Your task to perform on an android device: Go to ESPN.com Image 0: 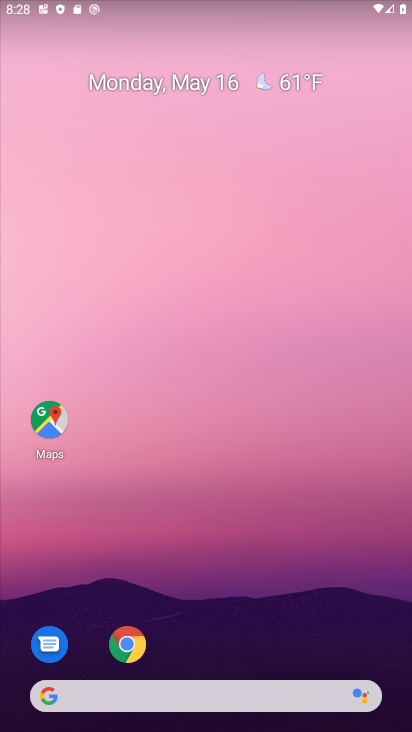
Step 0: drag from (241, 639) to (279, 128)
Your task to perform on an android device: Go to ESPN.com Image 1: 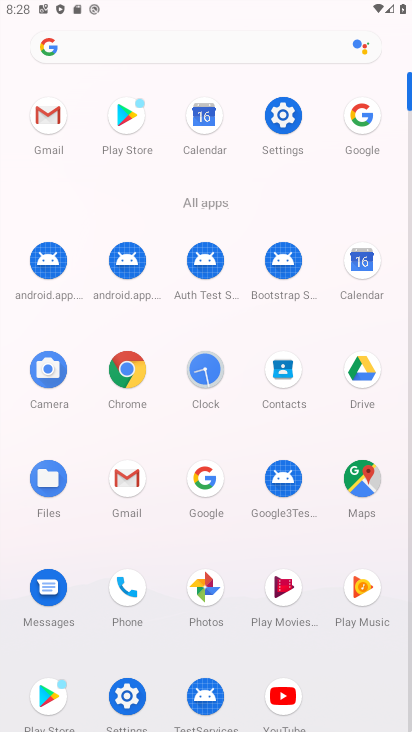
Step 1: click (202, 473)
Your task to perform on an android device: Go to ESPN.com Image 2: 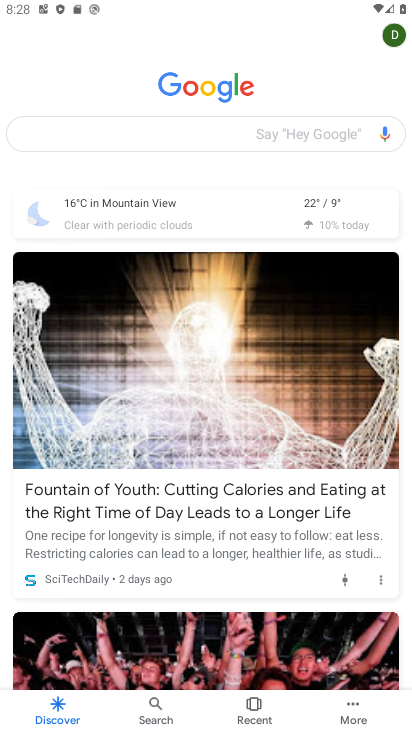
Step 2: click (182, 136)
Your task to perform on an android device: Go to ESPN.com Image 3: 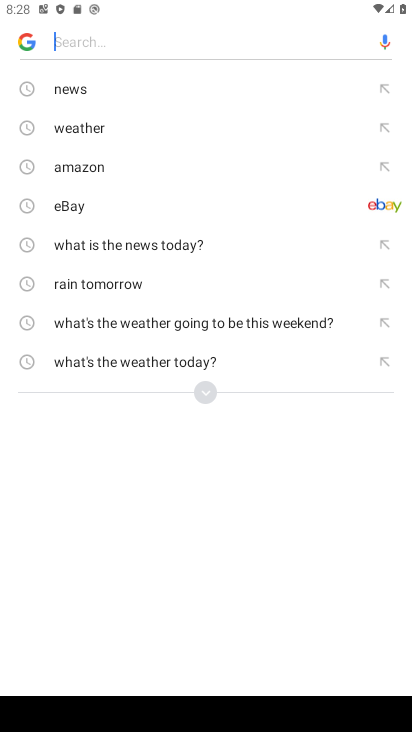
Step 3: type "espn.com"
Your task to perform on an android device: Go to ESPN.com Image 4: 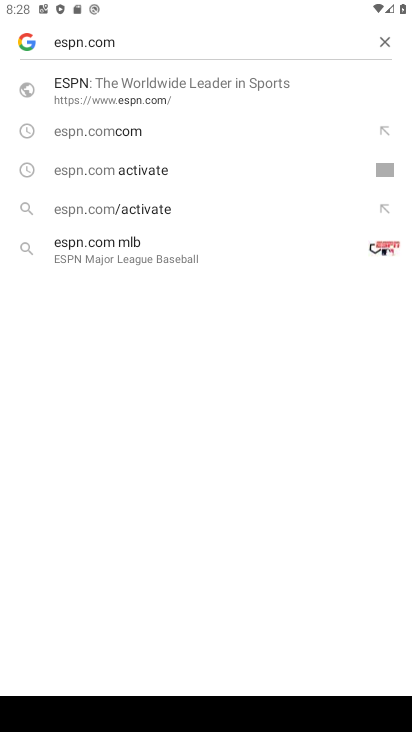
Step 4: click (159, 98)
Your task to perform on an android device: Go to ESPN.com Image 5: 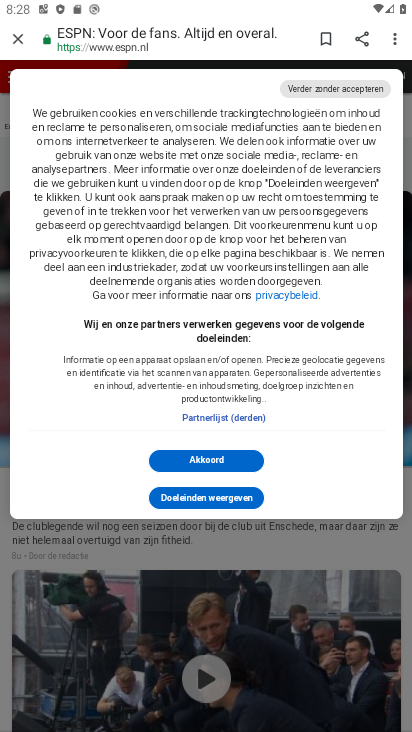
Step 5: task complete